Your task to perform on an android device: Is it going to rain this weekend? Image 0: 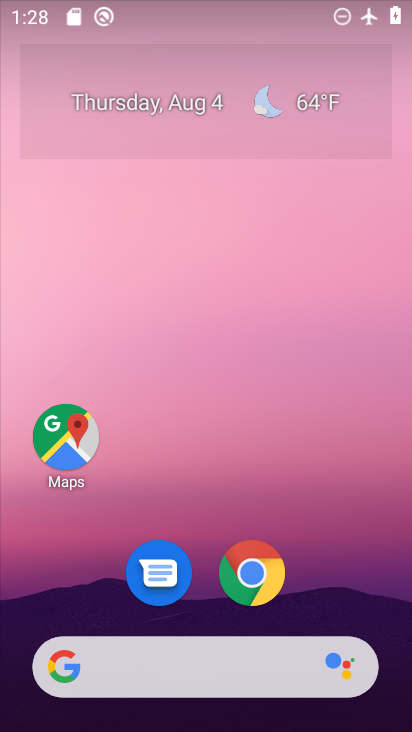
Step 0: drag from (373, 505) to (382, 68)
Your task to perform on an android device: Is it going to rain this weekend? Image 1: 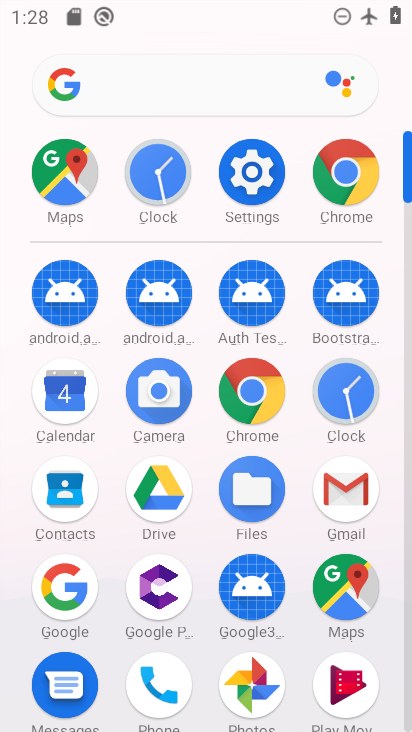
Step 1: press home button
Your task to perform on an android device: Is it going to rain this weekend? Image 2: 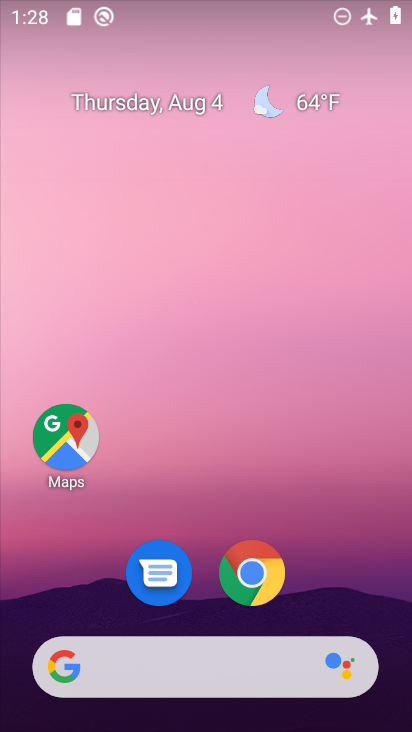
Step 2: click (318, 103)
Your task to perform on an android device: Is it going to rain this weekend? Image 3: 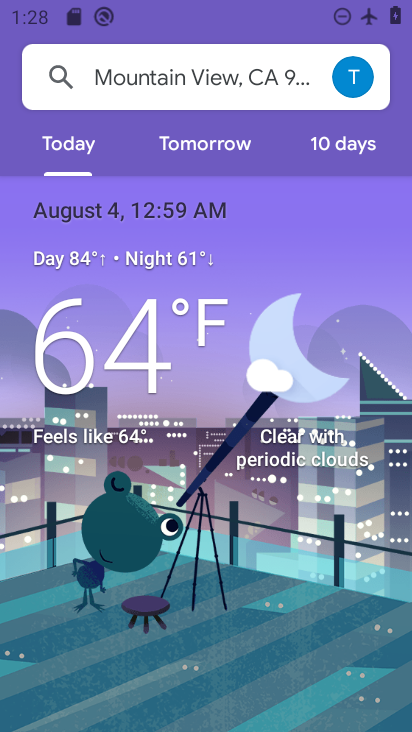
Step 3: click (331, 156)
Your task to perform on an android device: Is it going to rain this weekend? Image 4: 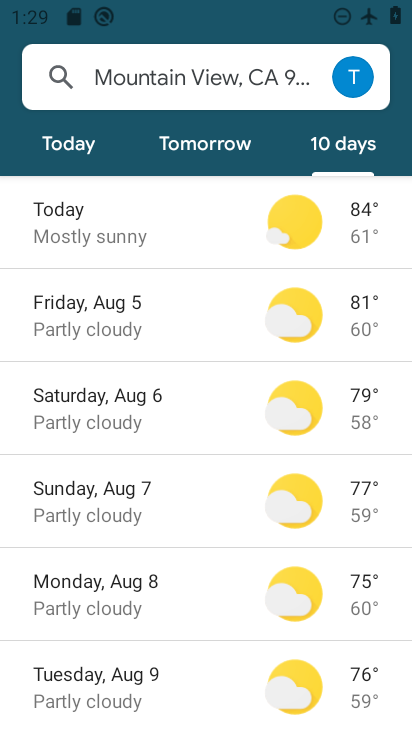
Step 4: click (113, 401)
Your task to perform on an android device: Is it going to rain this weekend? Image 5: 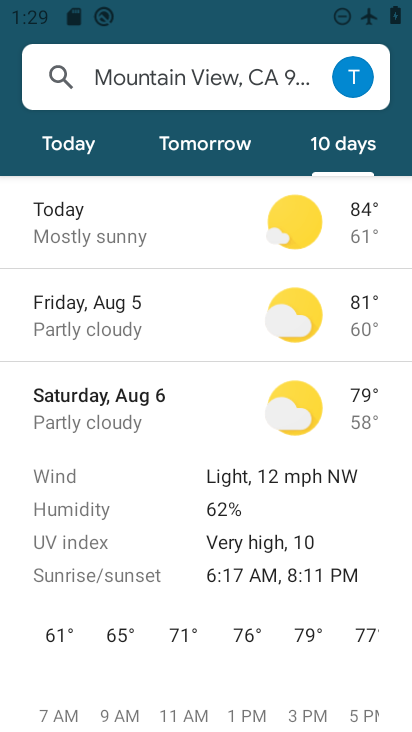
Step 5: task complete